Your task to perform on an android device: turn off notifications settings in the gmail app Image 0: 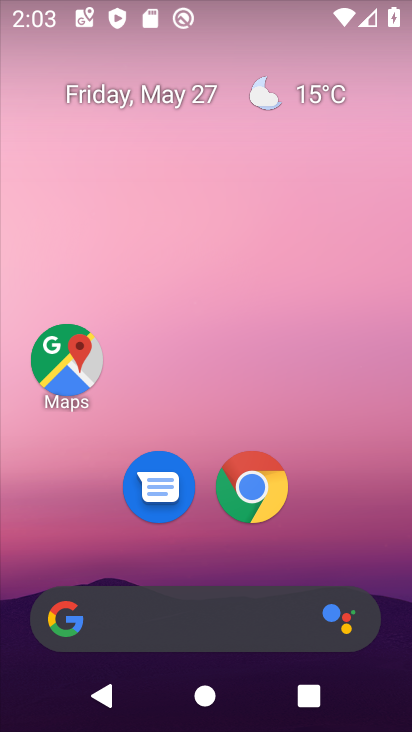
Step 0: drag from (216, 533) to (230, 60)
Your task to perform on an android device: turn off notifications settings in the gmail app Image 1: 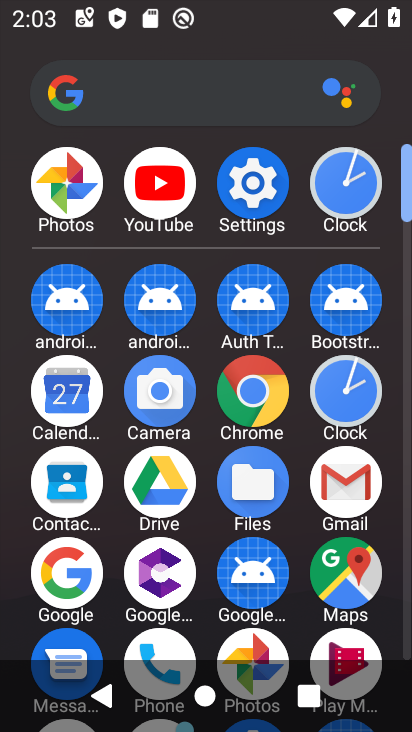
Step 1: click (363, 503)
Your task to perform on an android device: turn off notifications settings in the gmail app Image 2: 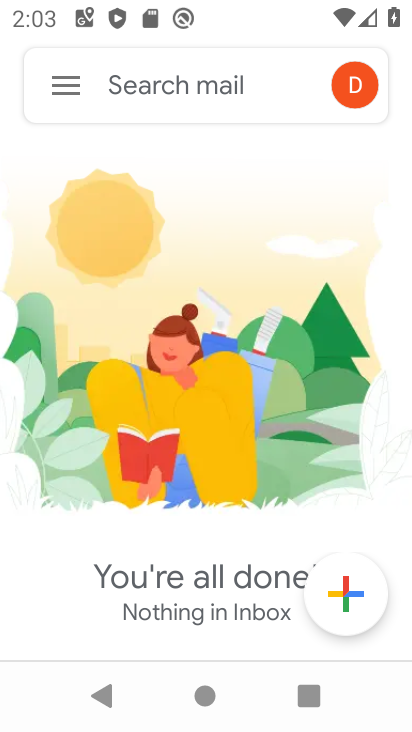
Step 2: click (66, 83)
Your task to perform on an android device: turn off notifications settings in the gmail app Image 3: 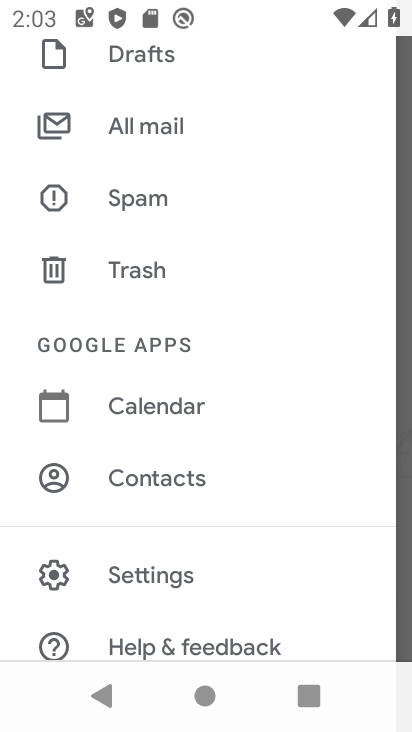
Step 3: click (124, 584)
Your task to perform on an android device: turn off notifications settings in the gmail app Image 4: 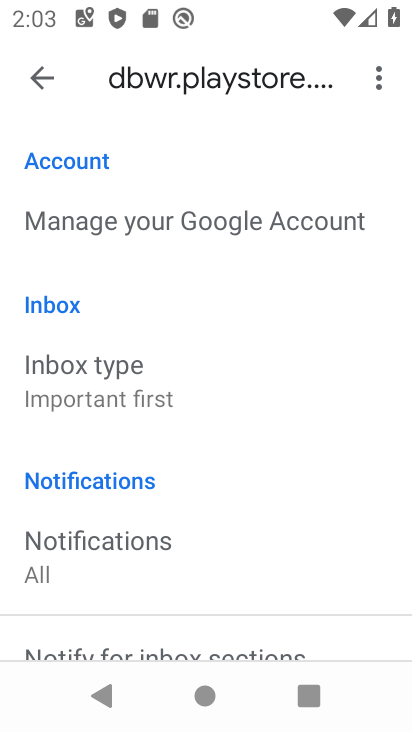
Step 4: click (143, 542)
Your task to perform on an android device: turn off notifications settings in the gmail app Image 5: 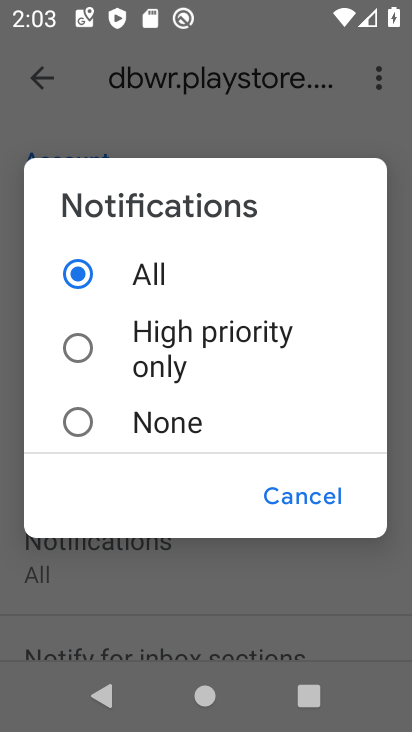
Step 5: click (77, 430)
Your task to perform on an android device: turn off notifications settings in the gmail app Image 6: 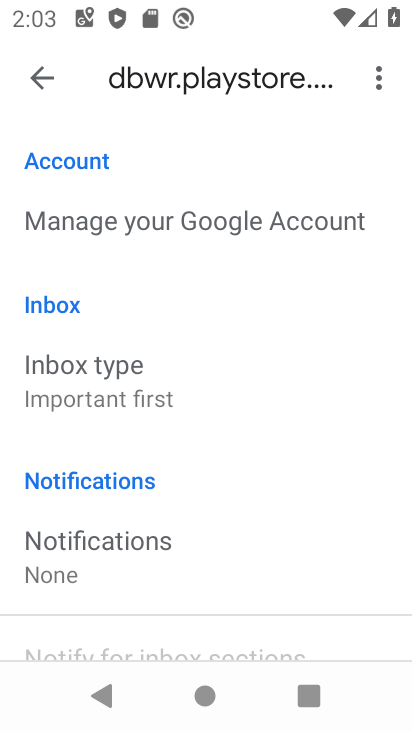
Step 6: task complete